Your task to perform on an android device: Empty the shopping cart on costco.com. Search for "logitech g933" on costco.com, select the first entry, add it to the cart, then select checkout. Image 0: 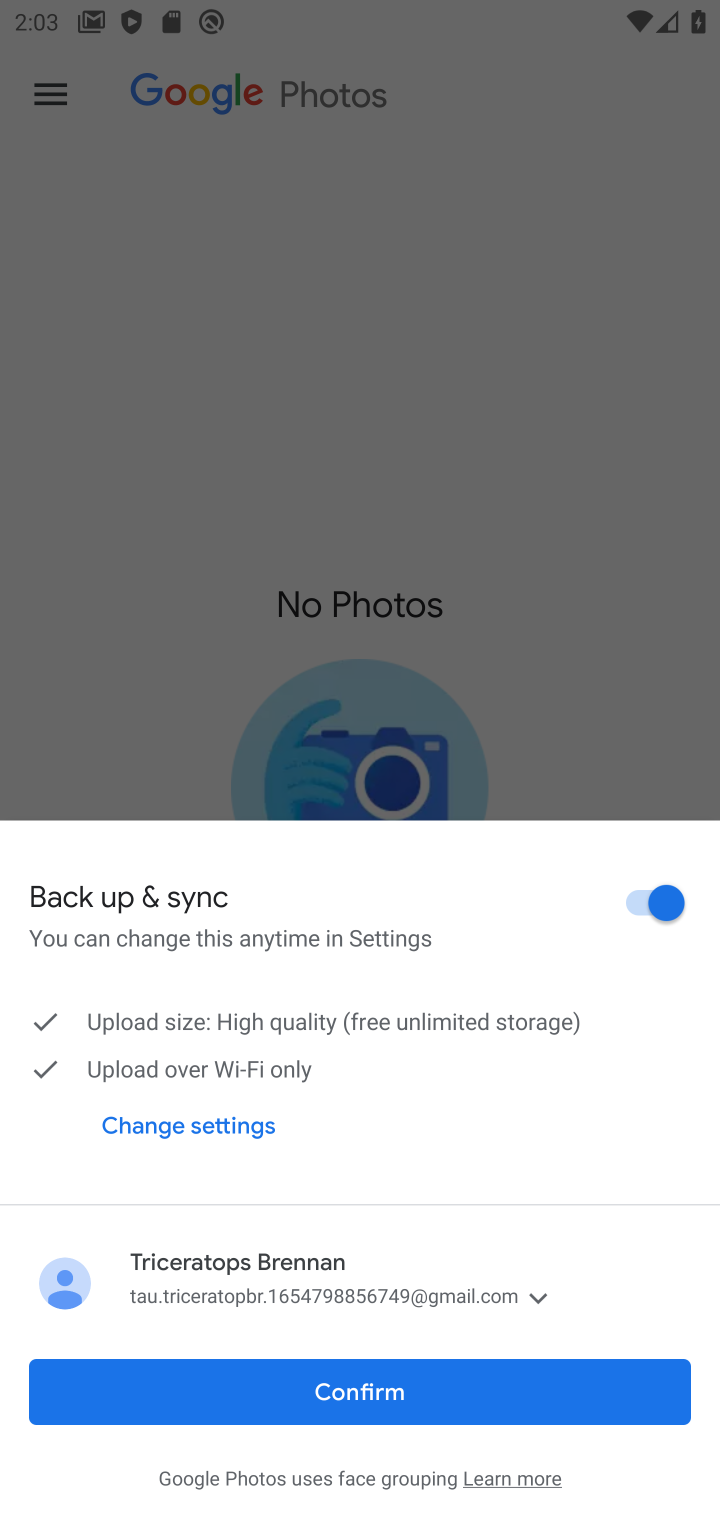
Step 0: press home button
Your task to perform on an android device: Empty the shopping cart on costco.com. Search for "logitech g933" on costco.com, select the first entry, add it to the cart, then select checkout. Image 1: 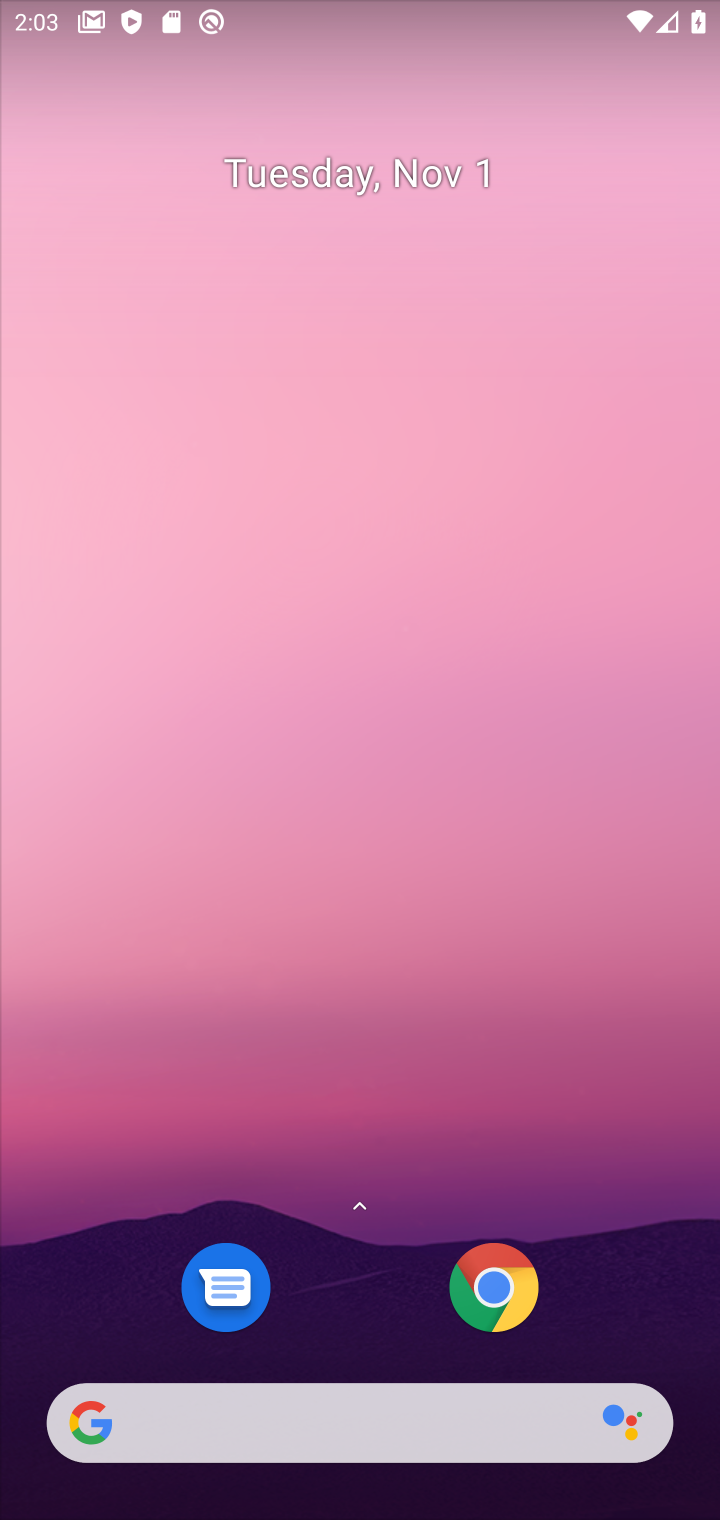
Step 1: drag from (348, 1276) to (424, 243)
Your task to perform on an android device: Empty the shopping cart on costco.com. Search for "logitech g933" on costco.com, select the first entry, add it to the cart, then select checkout. Image 2: 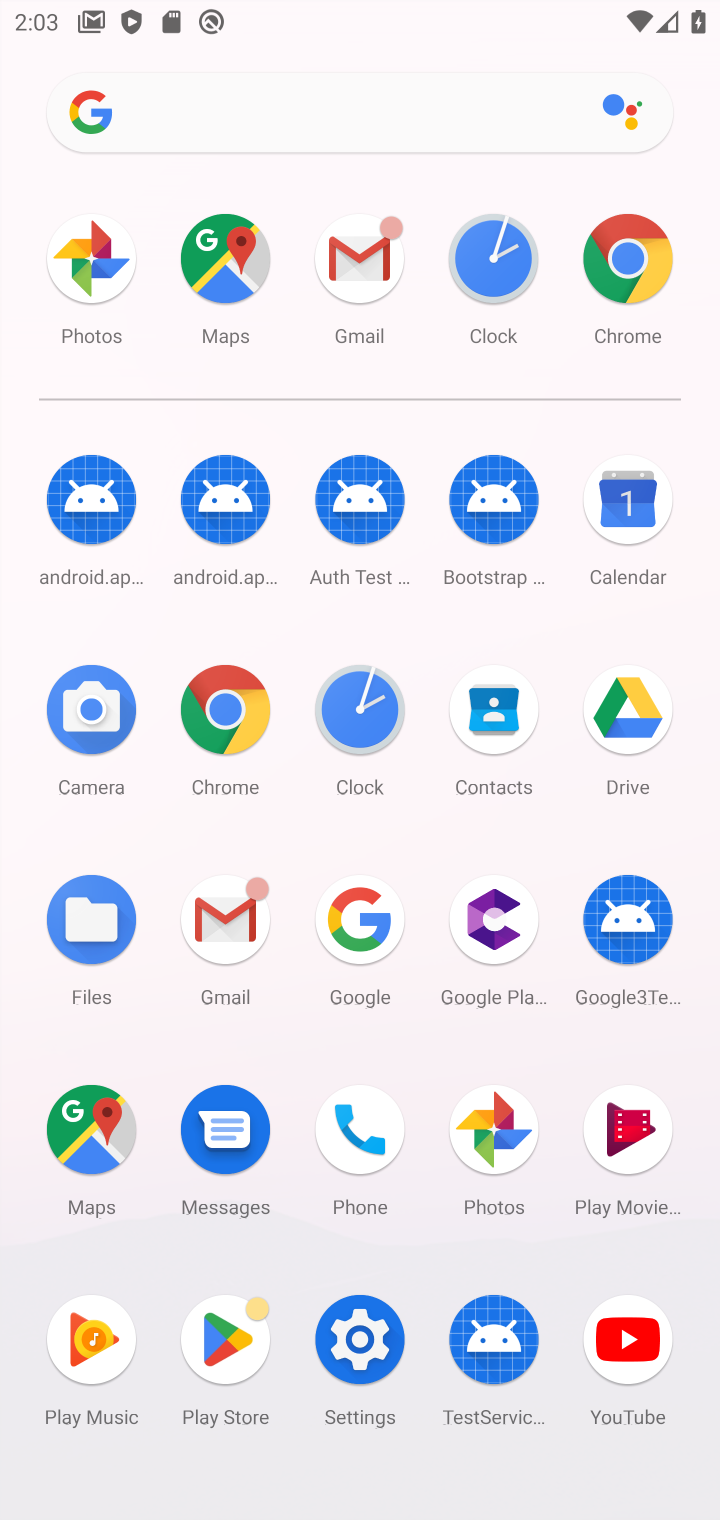
Step 2: click (230, 714)
Your task to perform on an android device: Empty the shopping cart on costco.com. Search for "logitech g933" on costco.com, select the first entry, add it to the cart, then select checkout. Image 3: 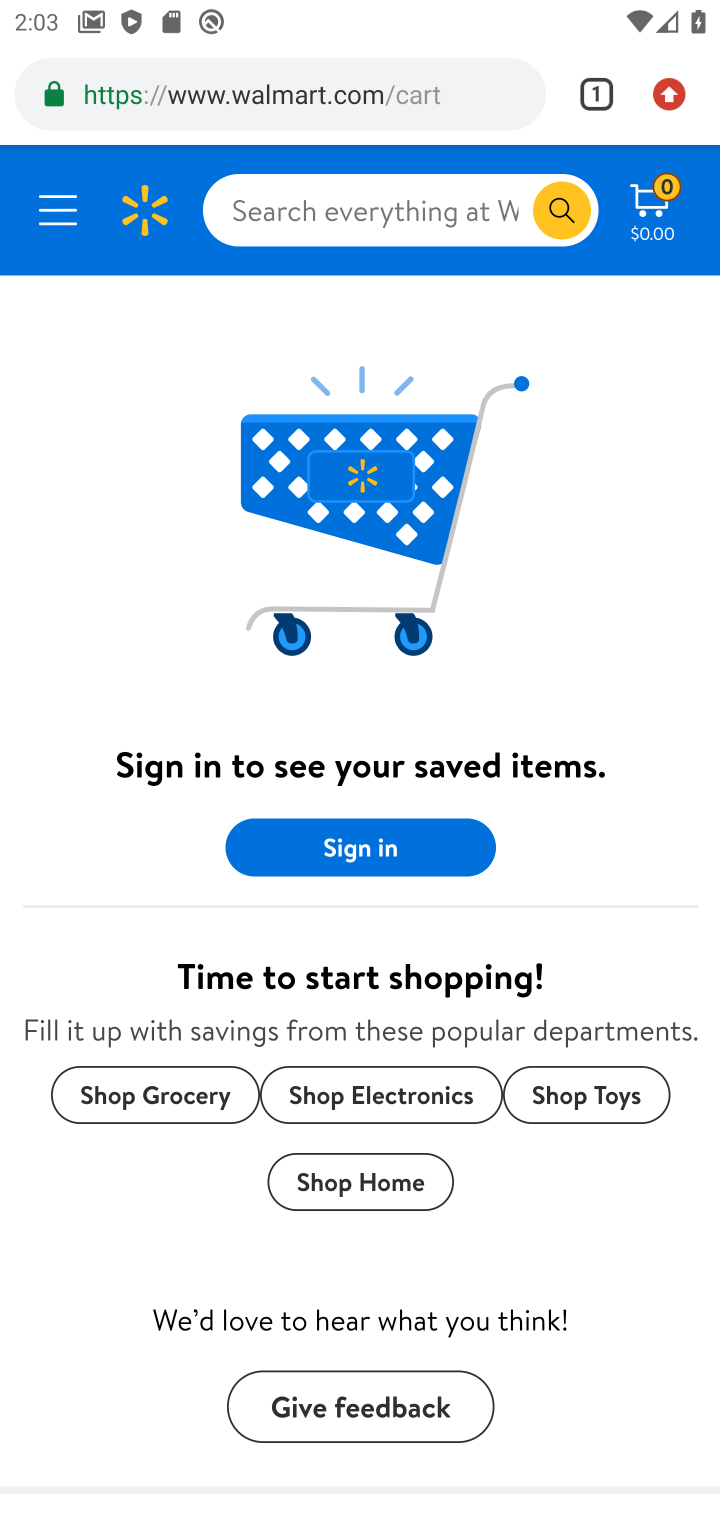
Step 3: click (425, 104)
Your task to perform on an android device: Empty the shopping cart on costco.com. Search for "logitech g933" on costco.com, select the first entry, add it to the cart, then select checkout. Image 4: 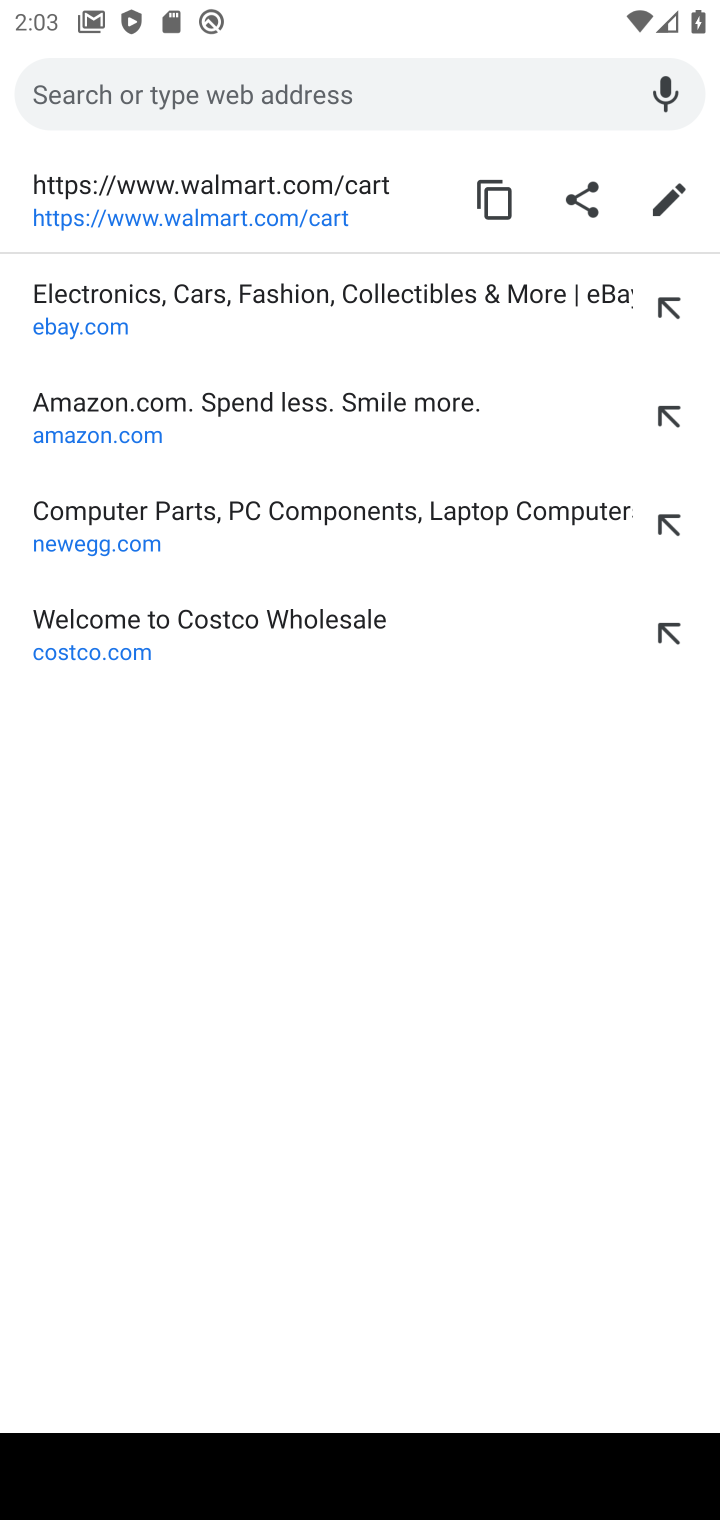
Step 4: type "costco.com"
Your task to perform on an android device: Empty the shopping cart on costco.com. Search for "logitech g933" on costco.com, select the first entry, add it to the cart, then select checkout. Image 5: 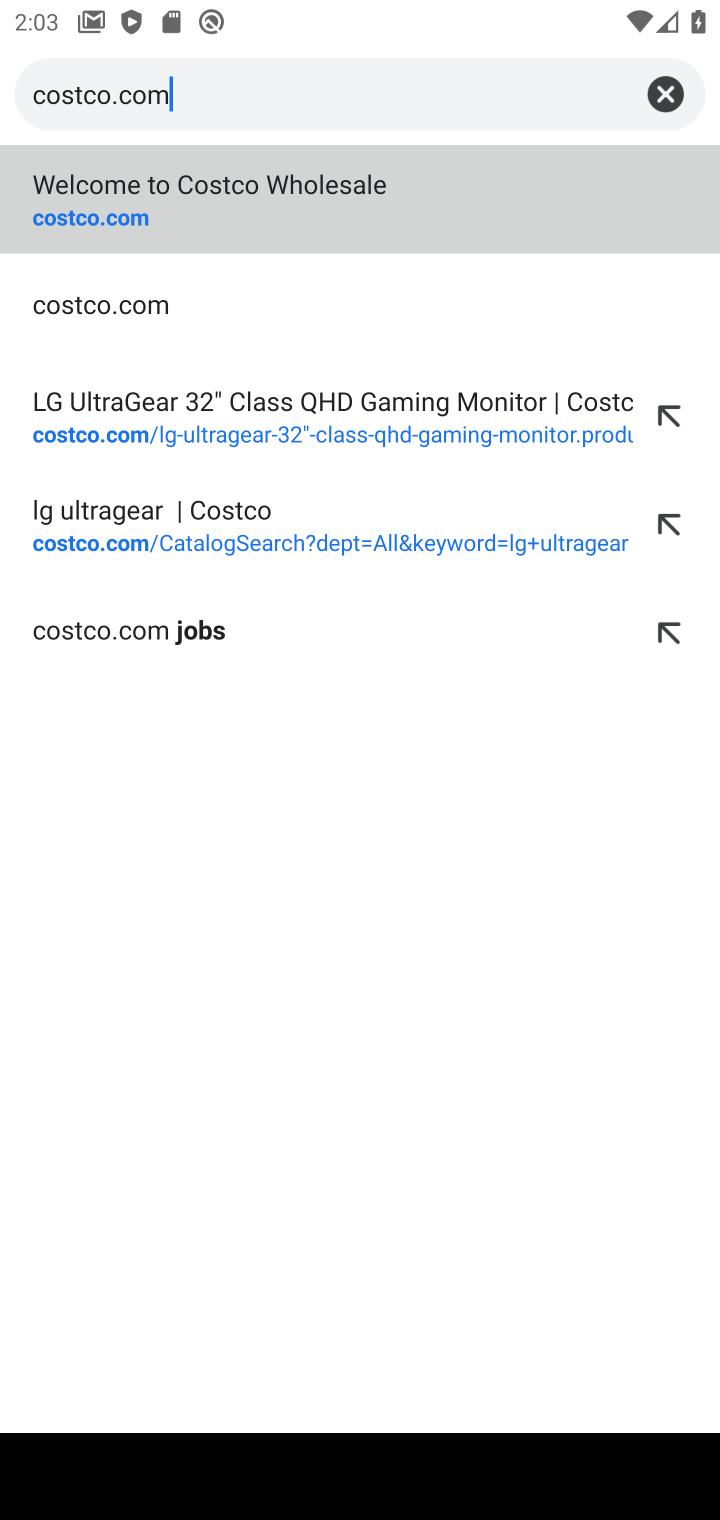
Step 5: press enter
Your task to perform on an android device: Empty the shopping cart on costco.com. Search for "logitech g933" on costco.com, select the first entry, add it to the cart, then select checkout. Image 6: 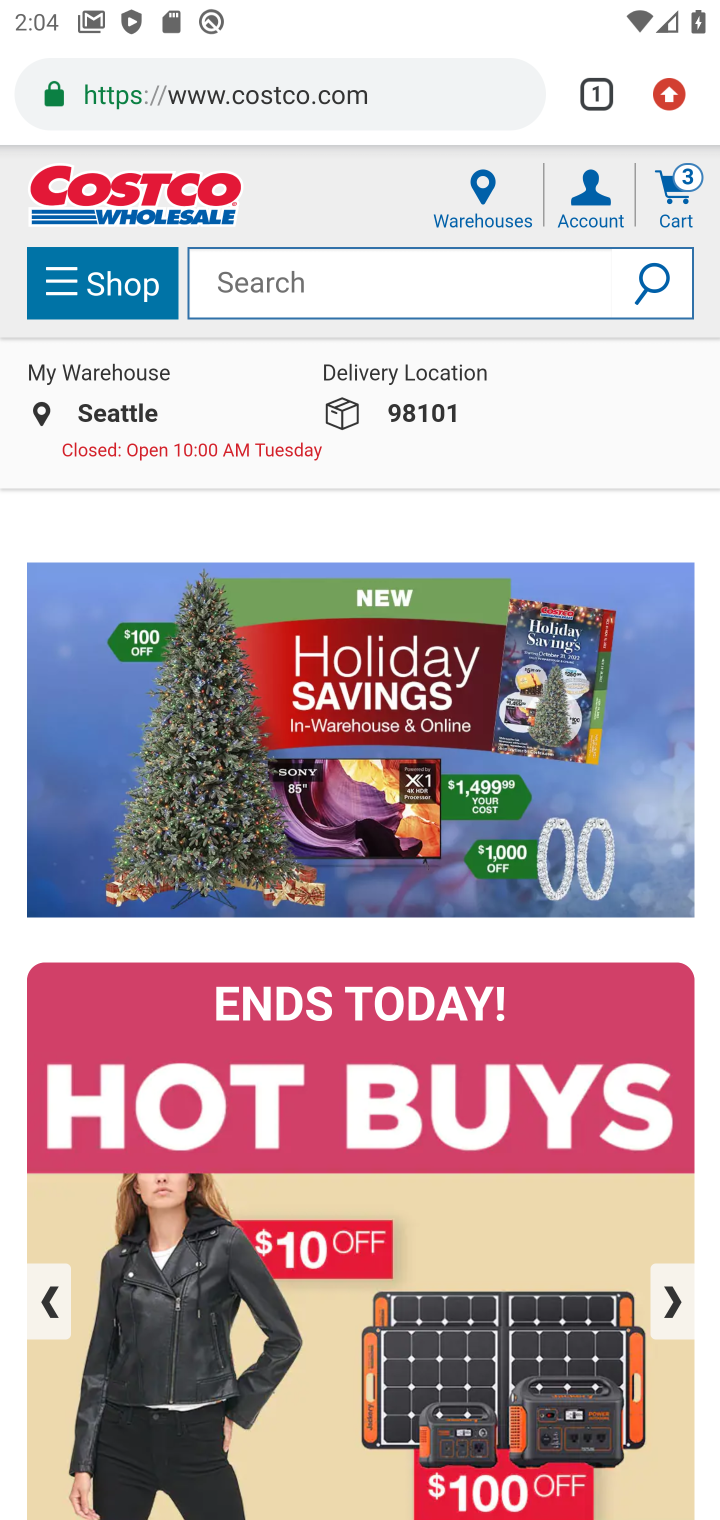
Step 6: click (687, 175)
Your task to perform on an android device: Empty the shopping cart on costco.com. Search for "logitech g933" on costco.com, select the first entry, add it to the cart, then select checkout. Image 7: 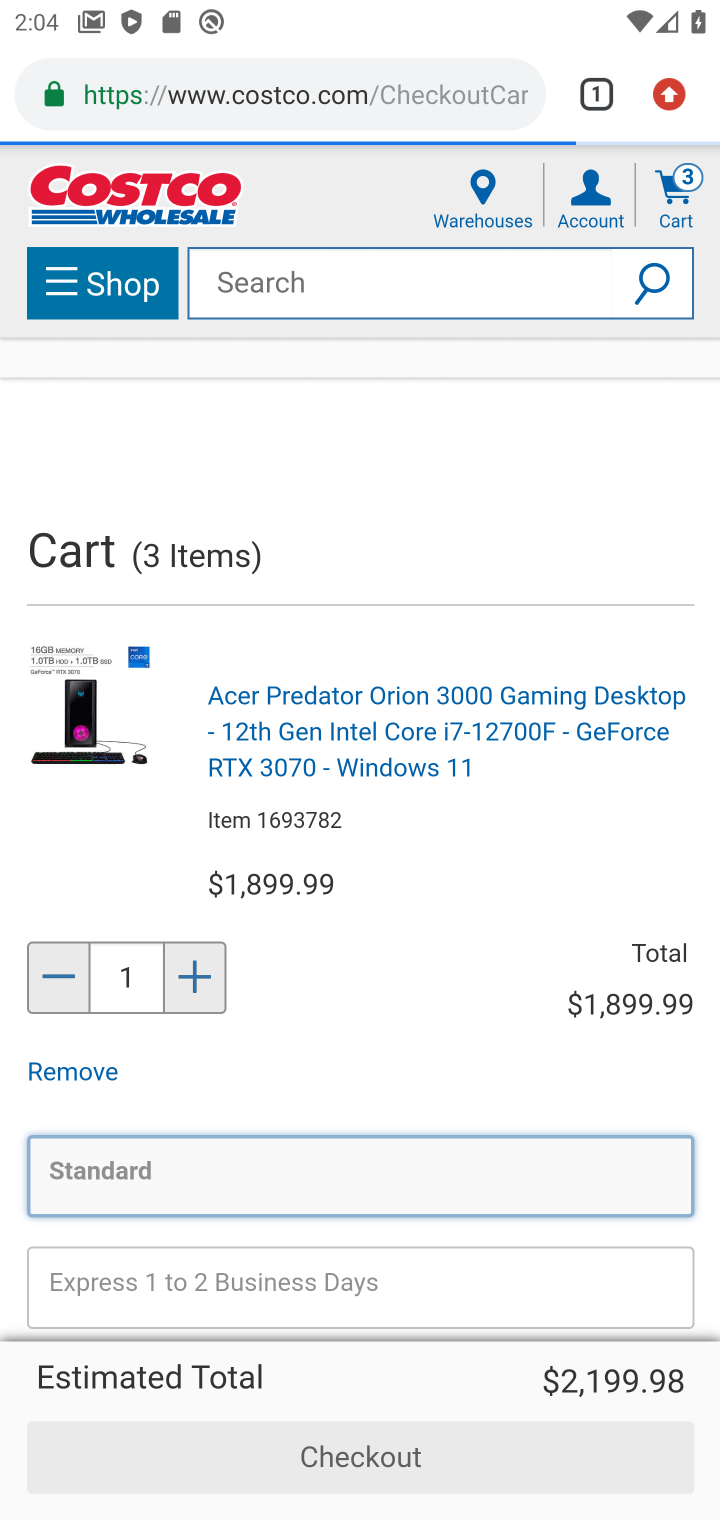
Step 7: drag from (411, 1086) to (578, 450)
Your task to perform on an android device: Empty the shopping cart on costco.com. Search for "logitech g933" on costco.com, select the first entry, add it to the cart, then select checkout. Image 8: 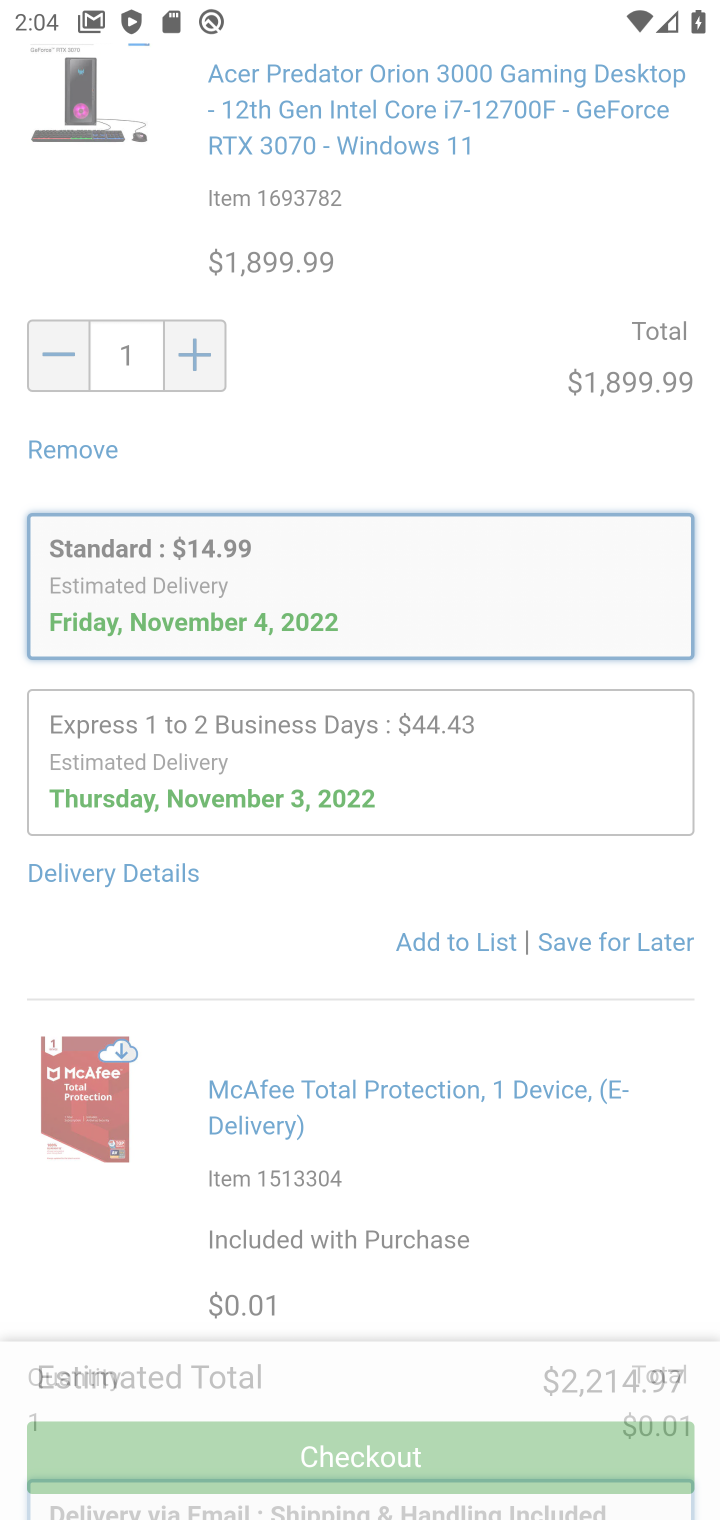
Step 8: drag from (441, 1116) to (532, 522)
Your task to perform on an android device: Empty the shopping cart on costco.com. Search for "logitech g933" on costco.com, select the first entry, add it to the cart, then select checkout. Image 9: 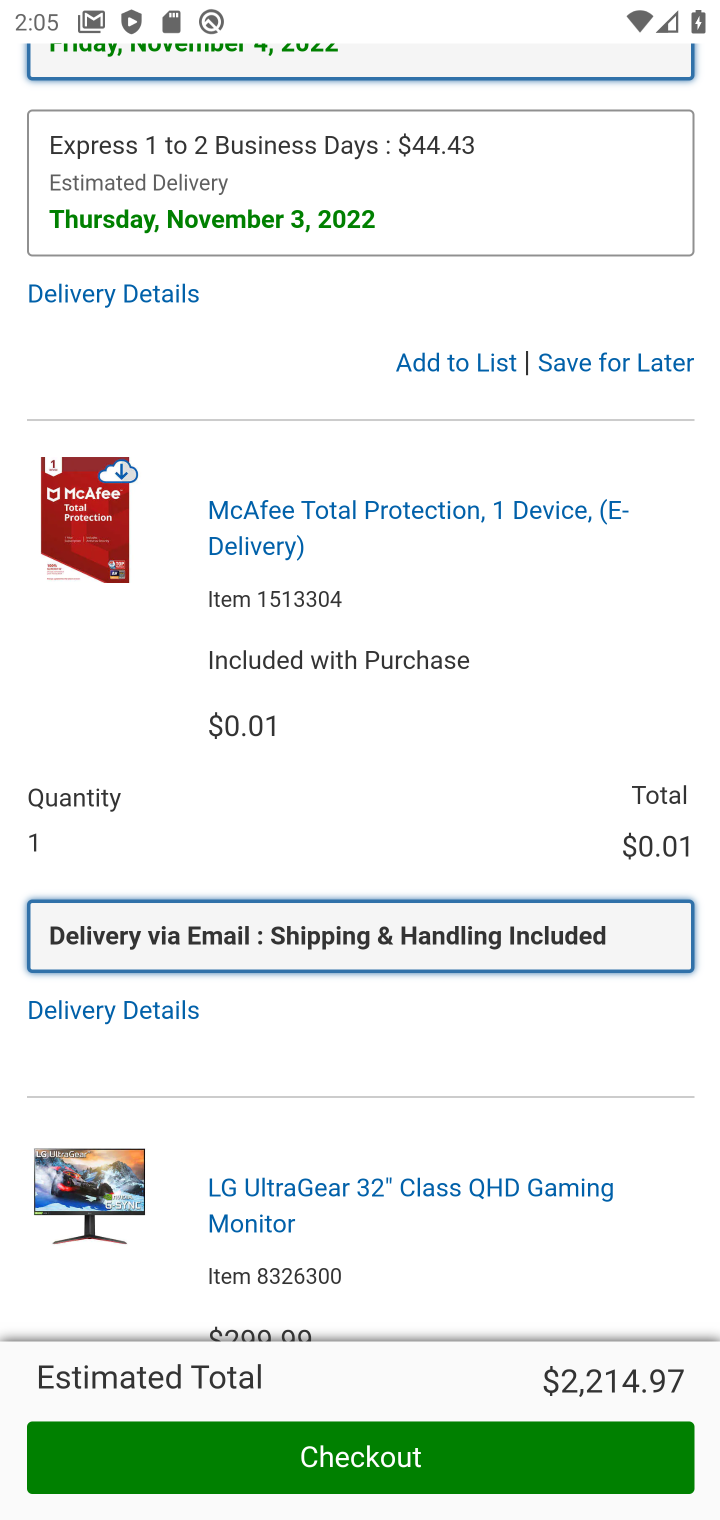
Step 9: click (446, 1450)
Your task to perform on an android device: Empty the shopping cart on costco.com. Search for "logitech g933" on costco.com, select the first entry, add it to the cart, then select checkout. Image 10: 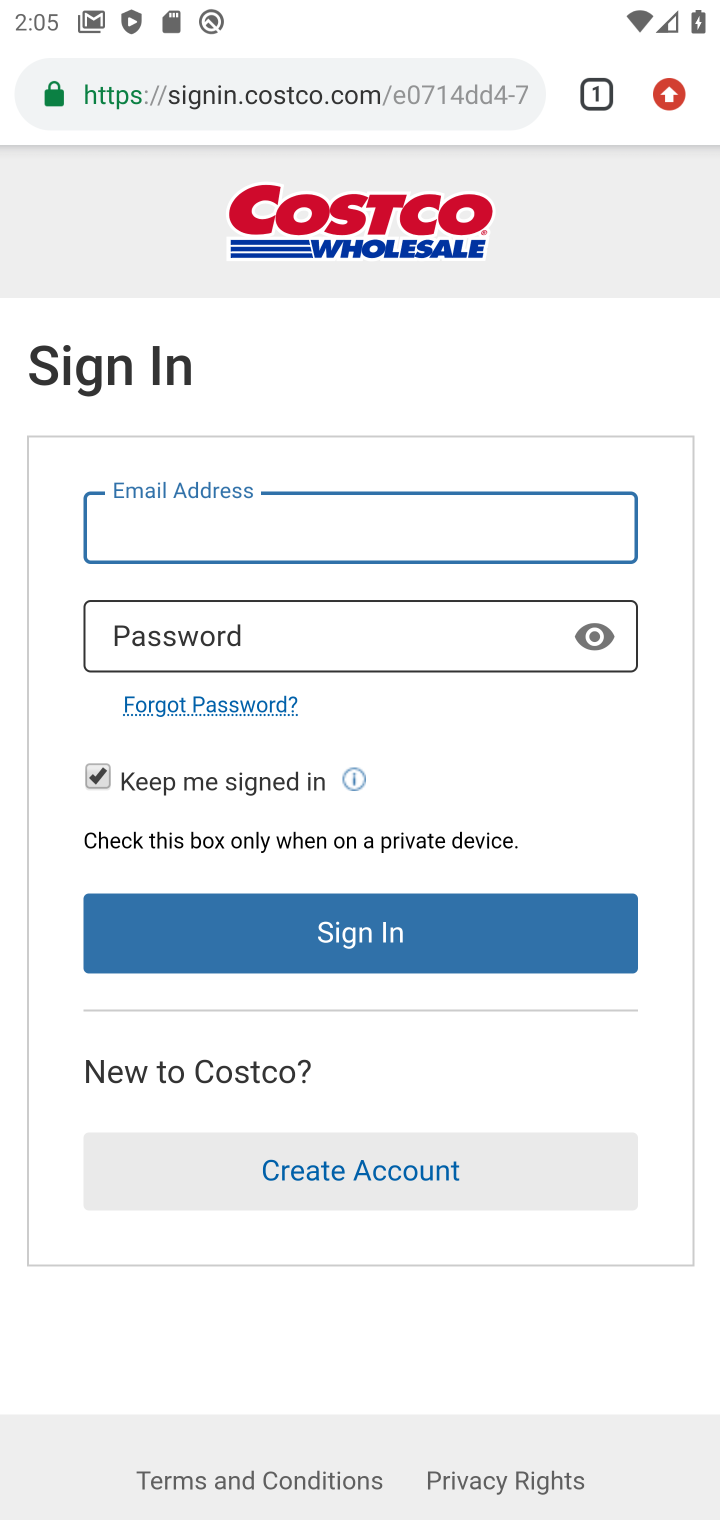
Step 10: task complete